Your task to perform on an android device: Turn off the flashlight Image 0: 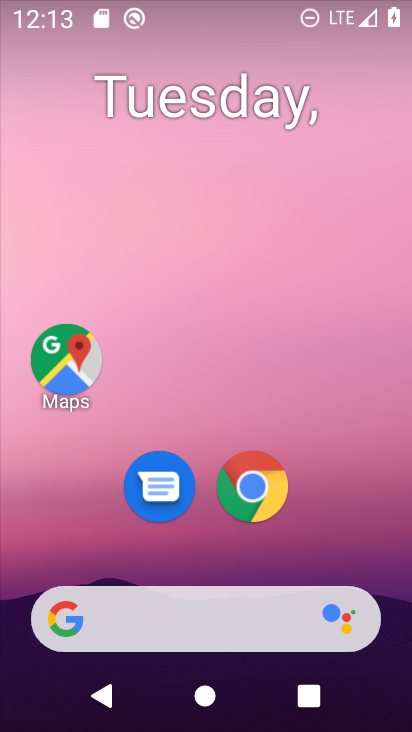
Step 0: drag from (7, 684) to (301, 126)
Your task to perform on an android device: Turn off the flashlight Image 1: 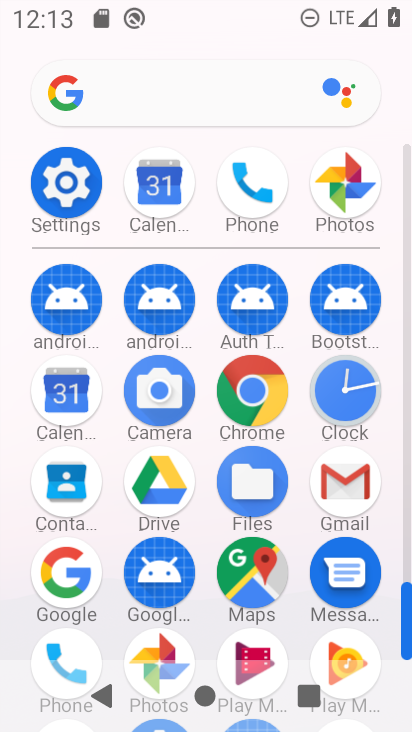
Step 1: click (69, 197)
Your task to perform on an android device: Turn off the flashlight Image 2: 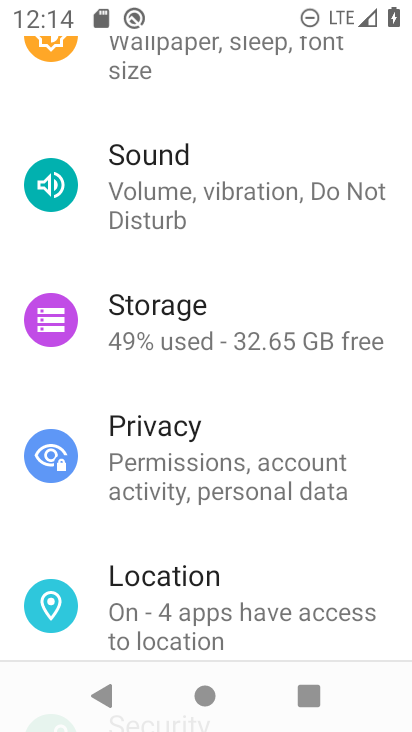
Step 2: task complete